Your task to perform on an android device: turn notification dots on Image 0: 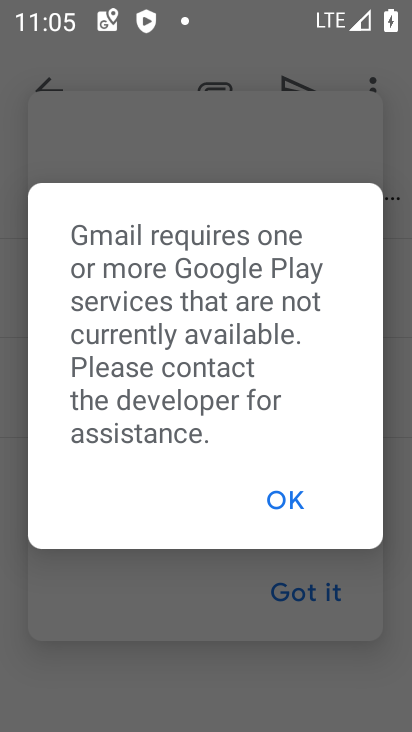
Step 0: press home button
Your task to perform on an android device: turn notification dots on Image 1: 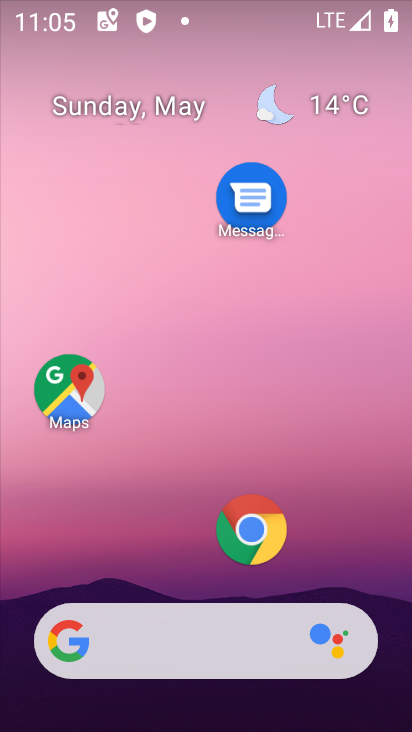
Step 1: drag from (214, 504) to (302, 731)
Your task to perform on an android device: turn notification dots on Image 2: 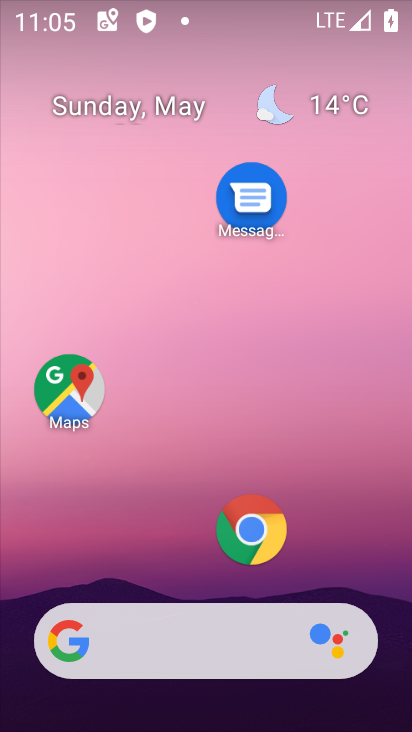
Step 2: drag from (173, 599) to (196, 176)
Your task to perform on an android device: turn notification dots on Image 3: 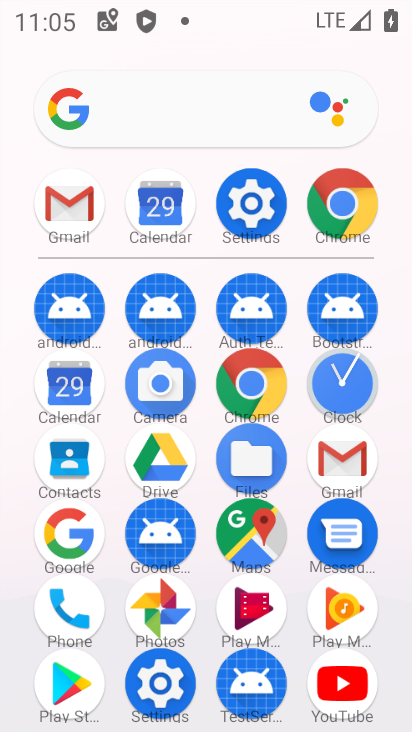
Step 3: click (261, 219)
Your task to perform on an android device: turn notification dots on Image 4: 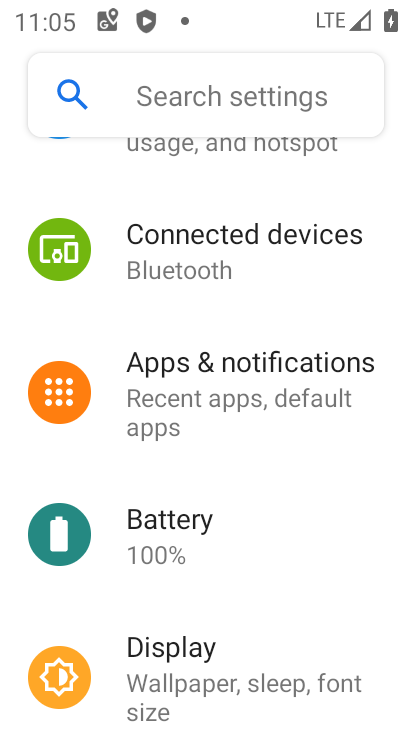
Step 4: click (229, 407)
Your task to perform on an android device: turn notification dots on Image 5: 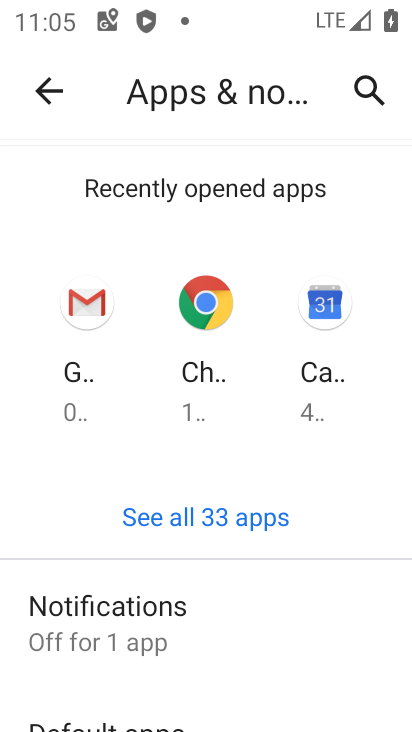
Step 5: drag from (269, 540) to (335, 338)
Your task to perform on an android device: turn notification dots on Image 6: 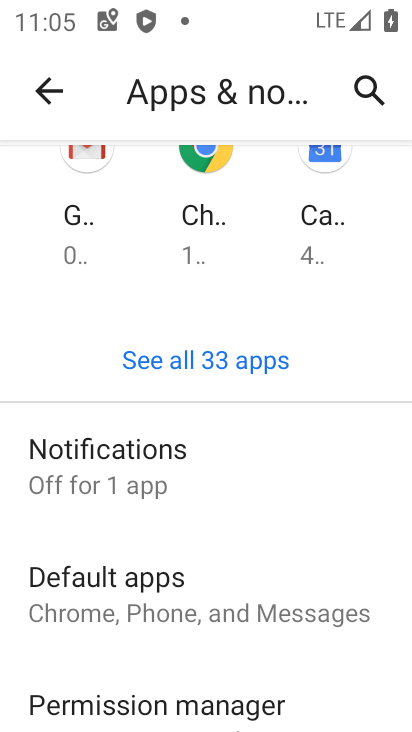
Step 6: click (145, 449)
Your task to perform on an android device: turn notification dots on Image 7: 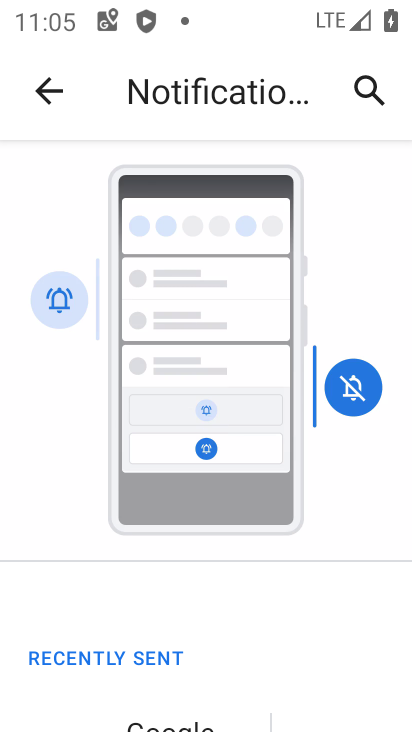
Step 7: drag from (180, 680) to (288, 200)
Your task to perform on an android device: turn notification dots on Image 8: 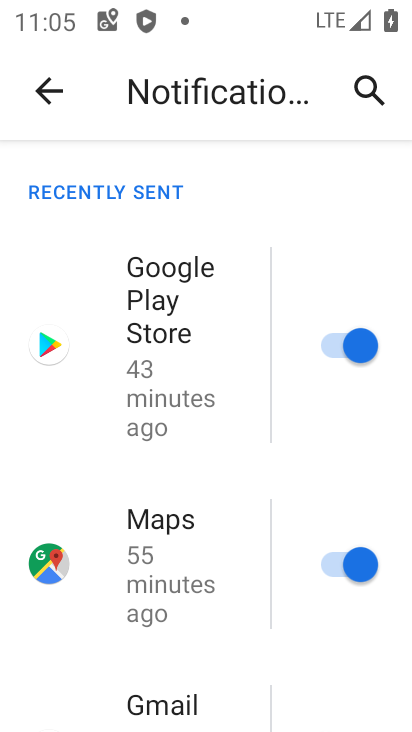
Step 8: drag from (210, 712) to (298, 192)
Your task to perform on an android device: turn notification dots on Image 9: 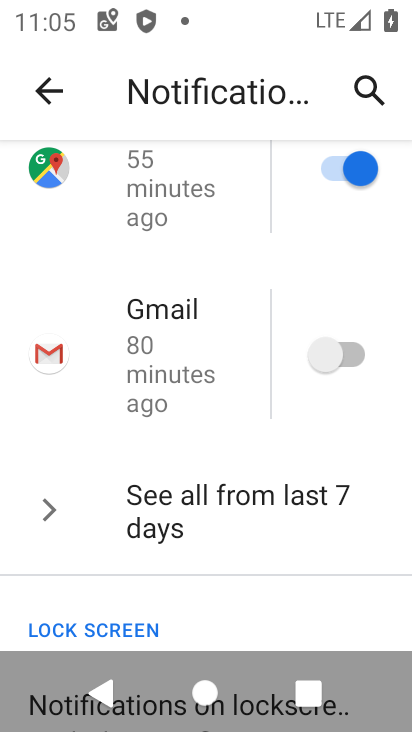
Step 9: drag from (219, 646) to (329, 101)
Your task to perform on an android device: turn notification dots on Image 10: 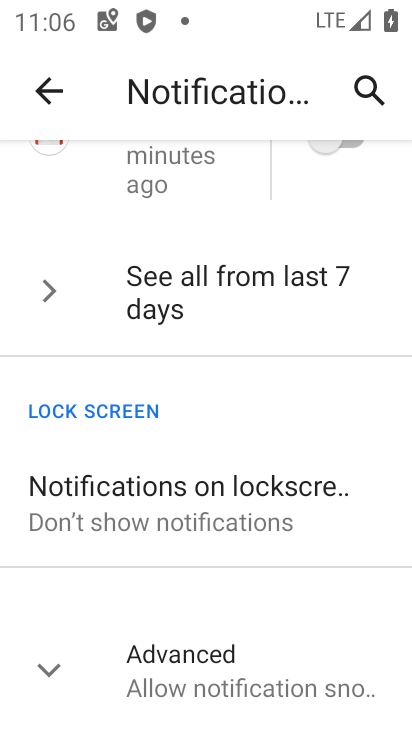
Step 10: click (234, 664)
Your task to perform on an android device: turn notification dots on Image 11: 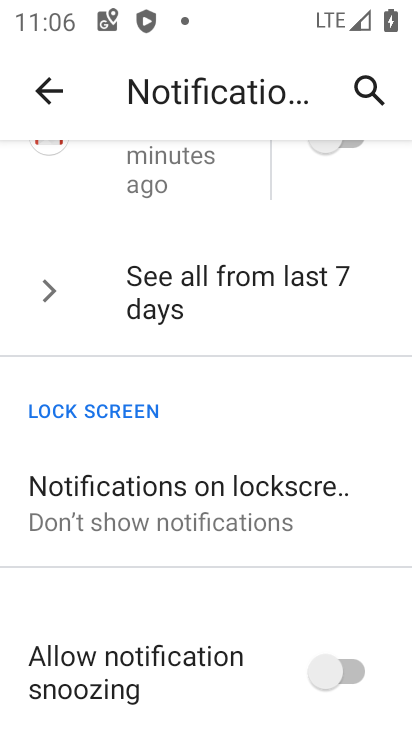
Step 11: drag from (240, 665) to (272, 270)
Your task to perform on an android device: turn notification dots on Image 12: 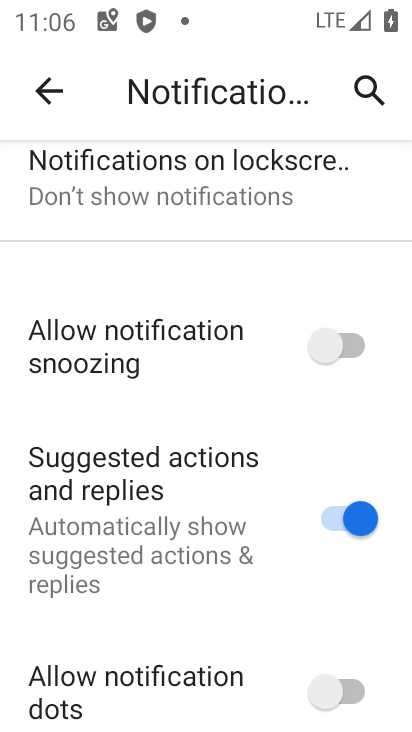
Step 12: click (346, 696)
Your task to perform on an android device: turn notification dots on Image 13: 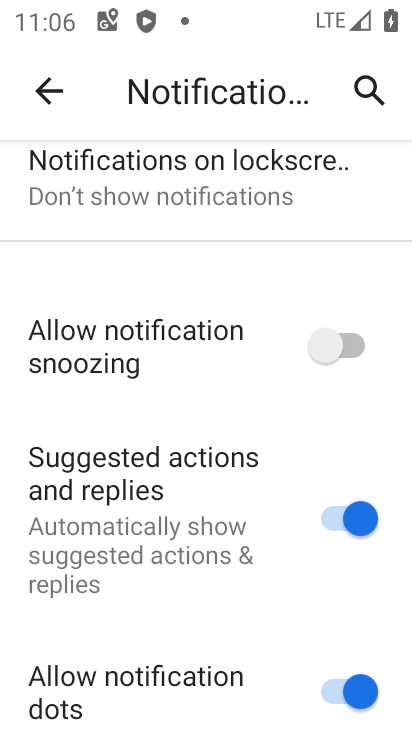
Step 13: task complete